Your task to perform on an android device: Do I have any events today? Image 0: 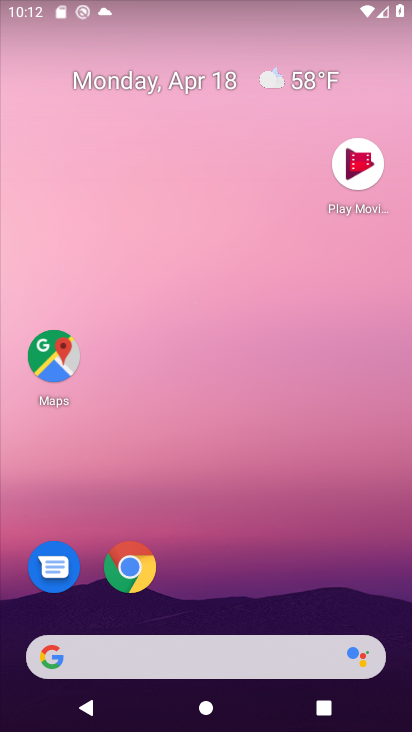
Step 0: drag from (180, 563) to (200, 74)
Your task to perform on an android device: Do I have any events today? Image 1: 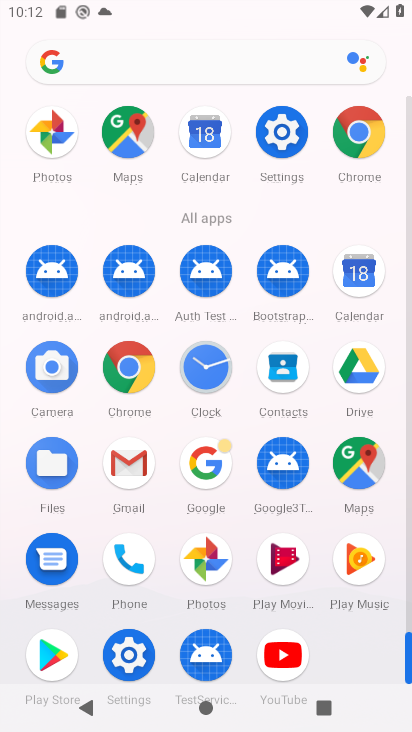
Step 1: click (363, 287)
Your task to perform on an android device: Do I have any events today? Image 2: 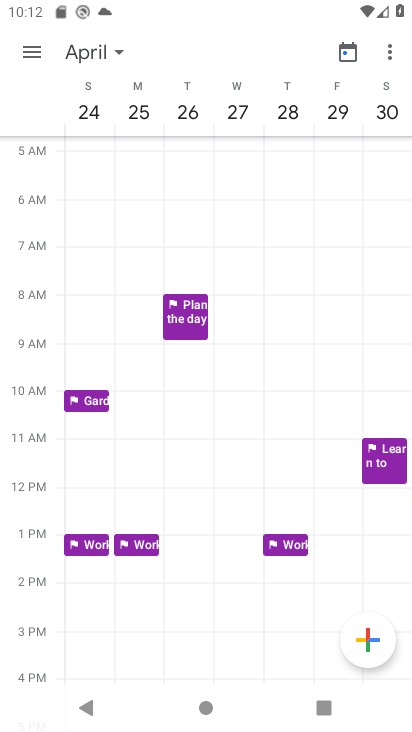
Step 2: drag from (294, 512) to (66, 494)
Your task to perform on an android device: Do I have any events today? Image 3: 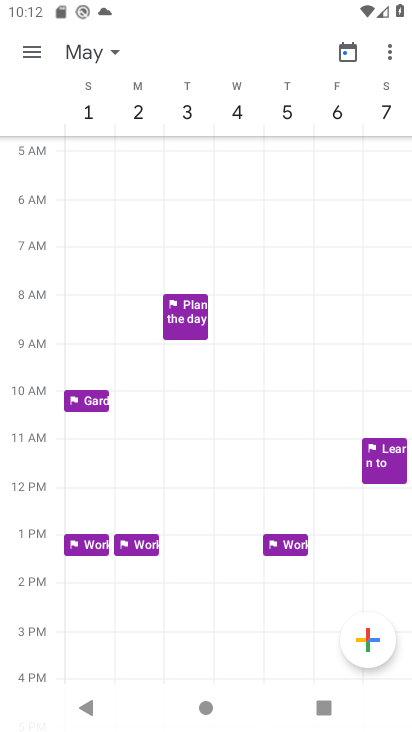
Step 3: drag from (234, 476) to (405, 442)
Your task to perform on an android device: Do I have any events today? Image 4: 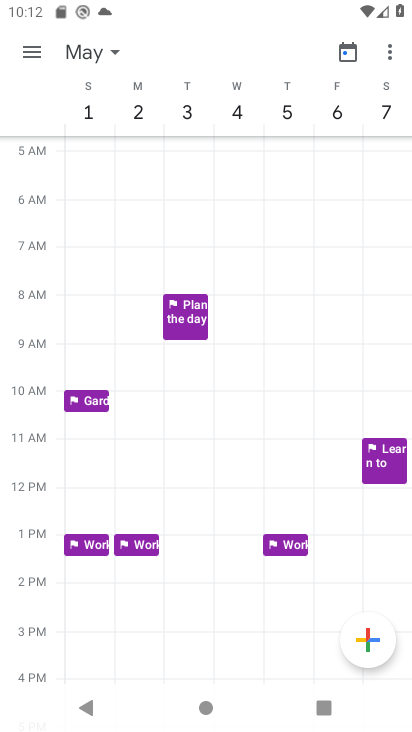
Step 4: drag from (137, 484) to (403, 417)
Your task to perform on an android device: Do I have any events today? Image 5: 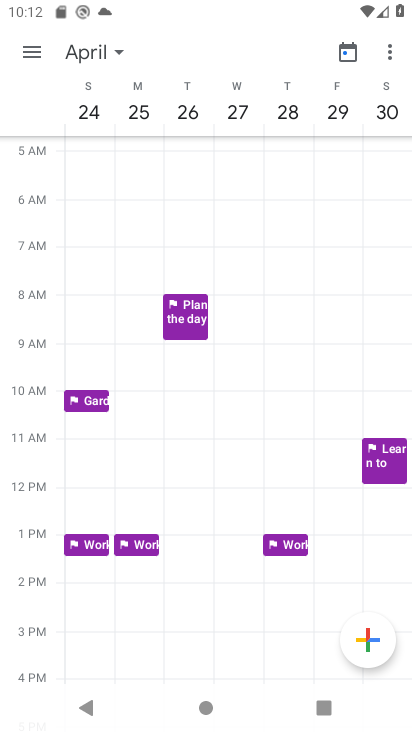
Step 5: drag from (105, 465) to (407, 460)
Your task to perform on an android device: Do I have any events today? Image 6: 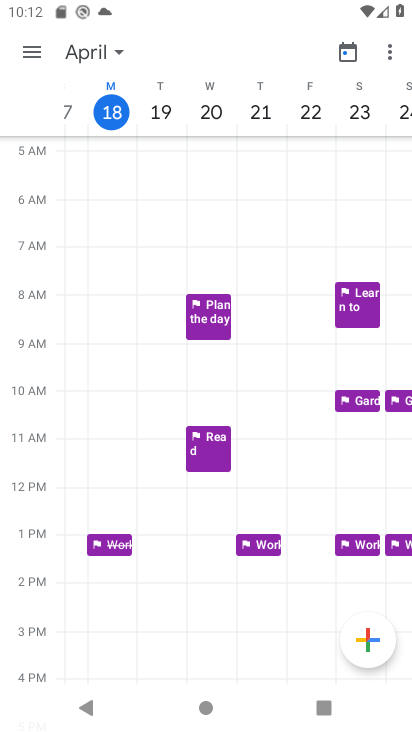
Step 6: drag from (154, 495) to (410, 461)
Your task to perform on an android device: Do I have any events today? Image 7: 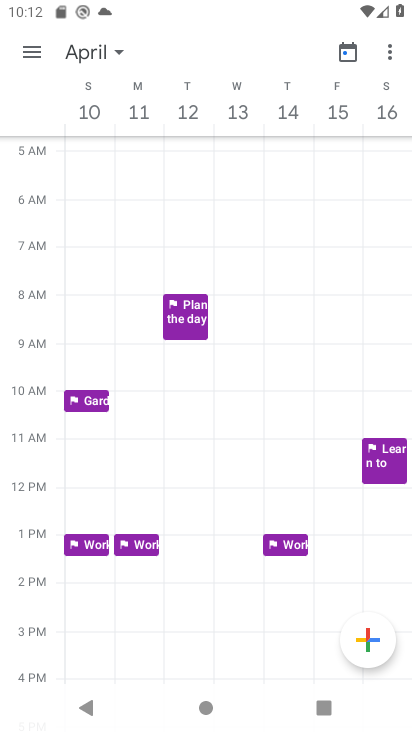
Step 7: drag from (136, 515) to (350, 511)
Your task to perform on an android device: Do I have any events today? Image 8: 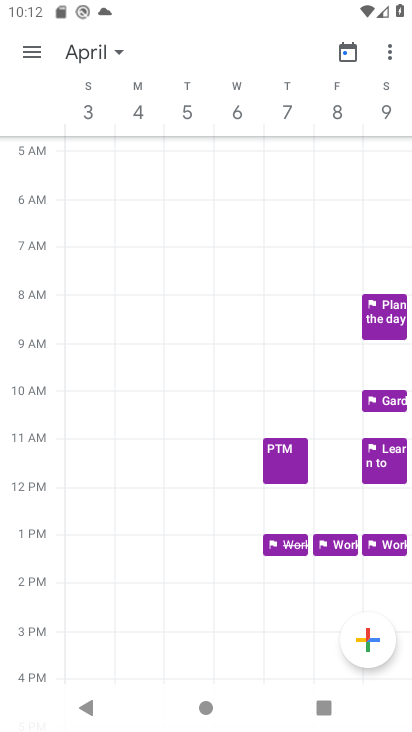
Step 8: drag from (363, 503) to (78, 514)
Your task to perform on an android device: Do I have any events today? Image 9: 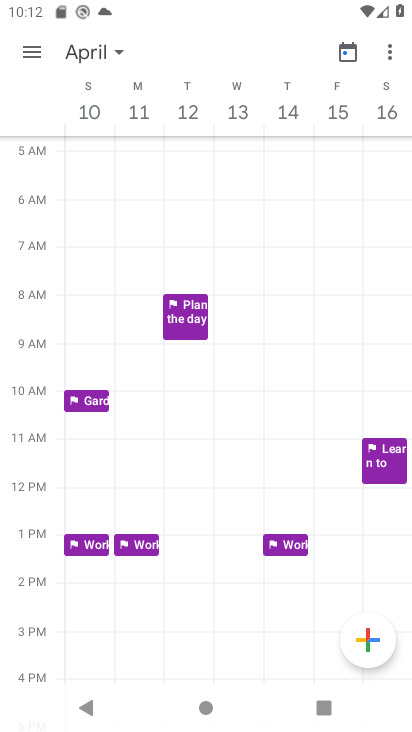
Step 9: drag from (101, 476) to (406, 472)
Your task to perform on an android device: Do I have any events today? Image 10: 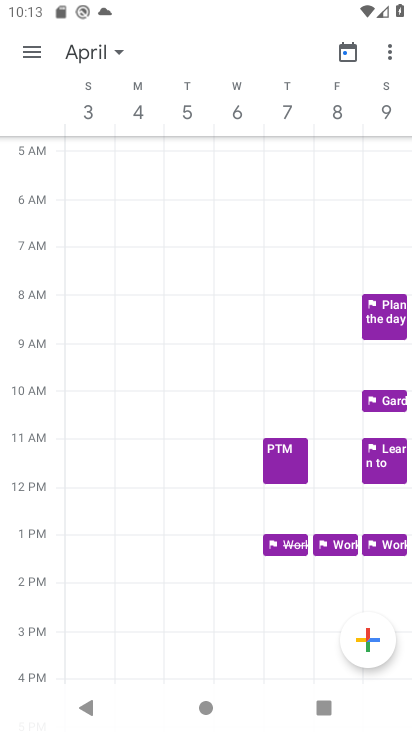
Step 10: click (25, 50)
Your task to perform on an android device: Do I have any events today? Image 11: 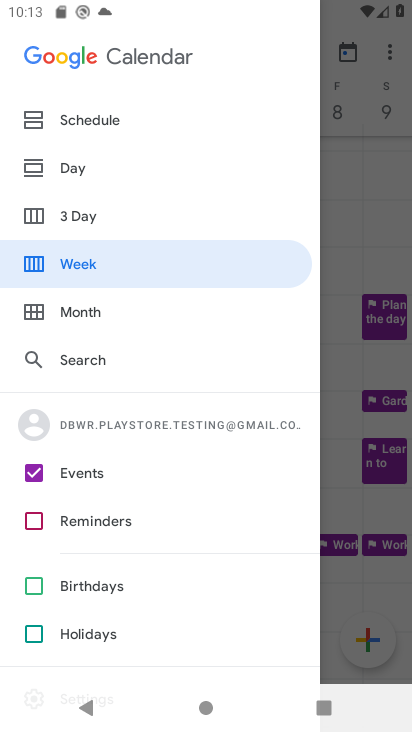
Step 11: click (353, 417)
Your task to perform on an android device: Do I have any events today? Image 12: 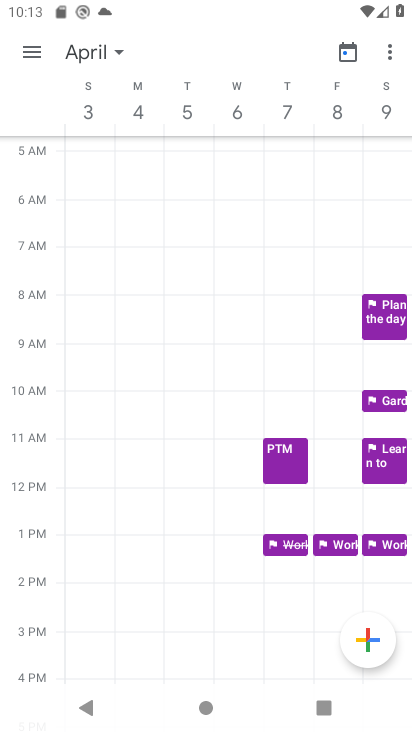
Step 12: task complete